Your task to perform on an android device: Open calendar and show me the fourth week of next month Image 0: 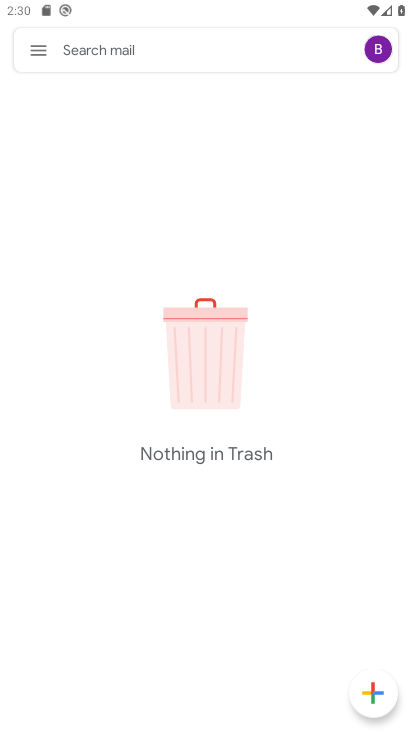
Step 0: press back button
Your task to perform on an android device: Open calendar and show me the fourth week of next month Image 1: 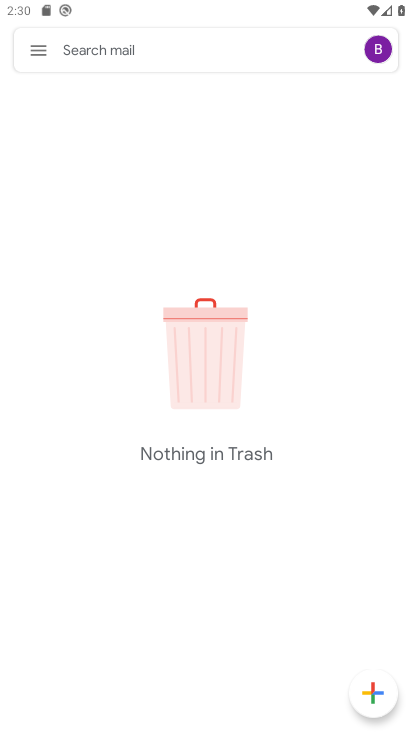
Step 1: press back button
Your task to perform on an android device: Open calendar and show me the fourth week of next month Image 2: 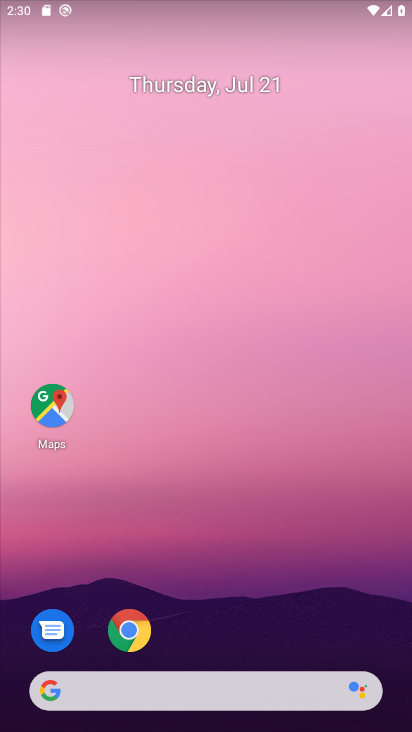
Step 2: drag from (236, 520) to (170, 143)
Your task to perform on an android device: Open calendar and show me the fourth week of next month Image 3: 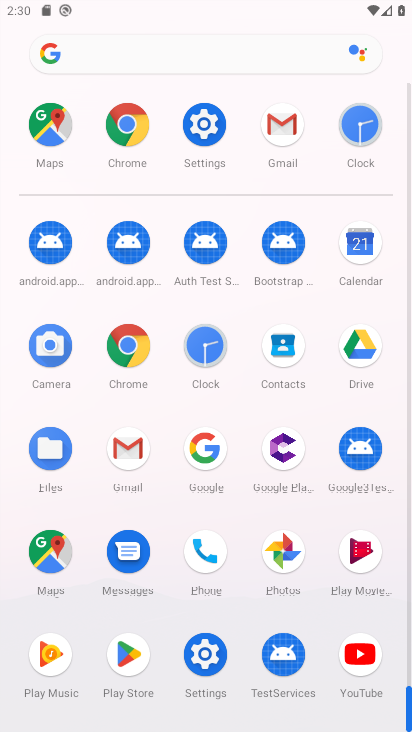
Step 3: click (349, 246)
Your task to perform on an android device: Open calendar and show me the fourth week of next month Image 4: 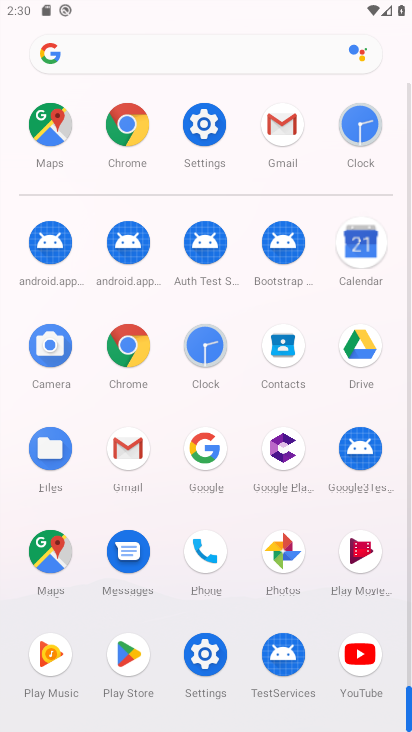
Step 4: click (353, 240)
Your task to perform on an android device: Open calendar and show me the fourth week of next month Image 5: 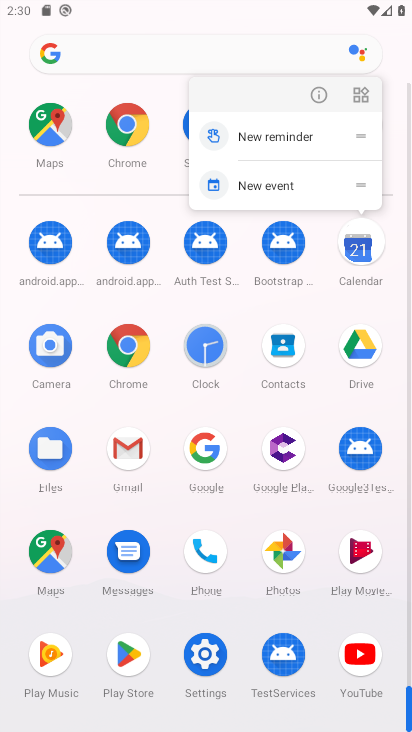
Step 5: click (354, 238)
Your task to perform on an android device: Open calendar and show me the fourth week of next month Image 6: 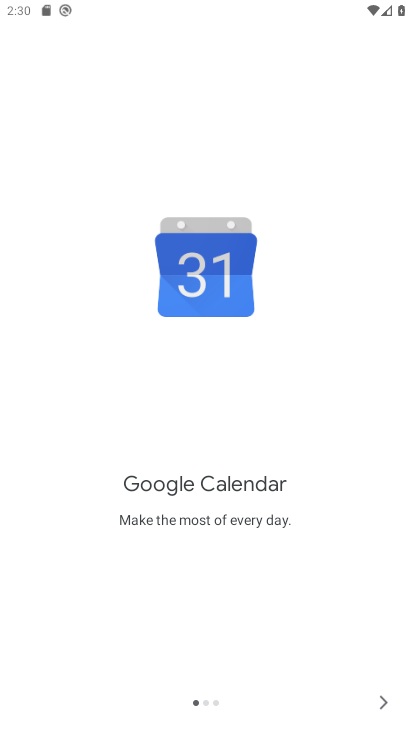
Step 6: click (384, 702)
Your task to perform on an android device: Open calendar and show me the fourth week of next month Image 7: 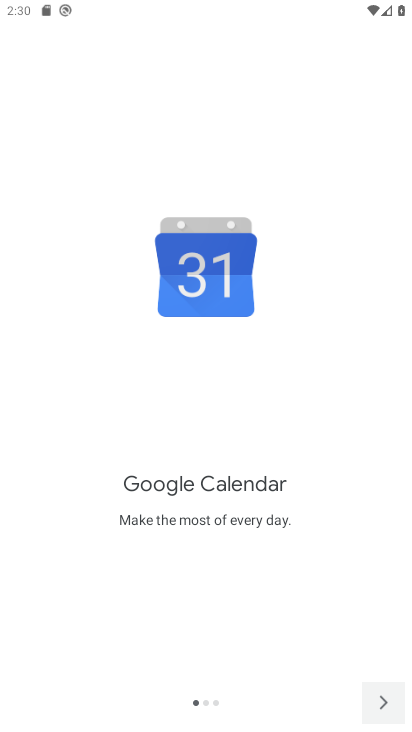
Step 7: click (385, 702)
Your task to perform on an android device: Open calendar and show me the fourth week of next month Image 8: 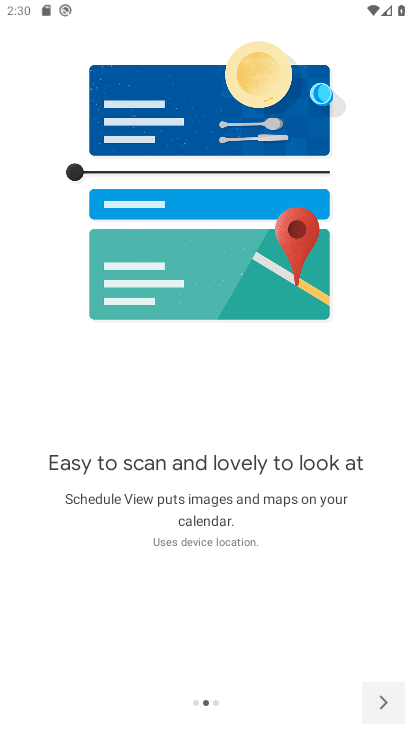
Step 8: click (383, 702)
Your task to perform on an android device: Open calendar and show me the fourth week of next month Image 9: 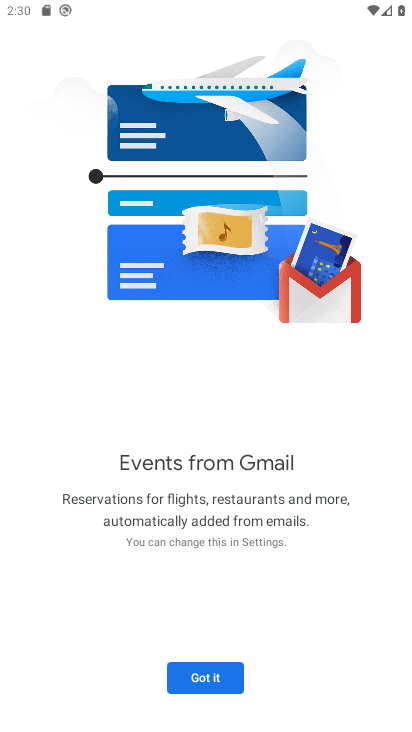
Step 9: click (383, 702)
Your task to perform on an android device: Open calendar and show me the fourth week of next month Image 10: 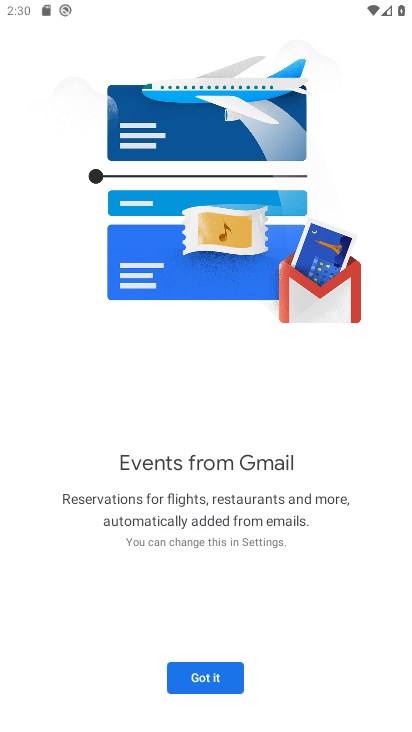
Step 10: click (383, 702)
Your task to perform on an android device: Open calendar and show me the fourth week of next month Image 11: 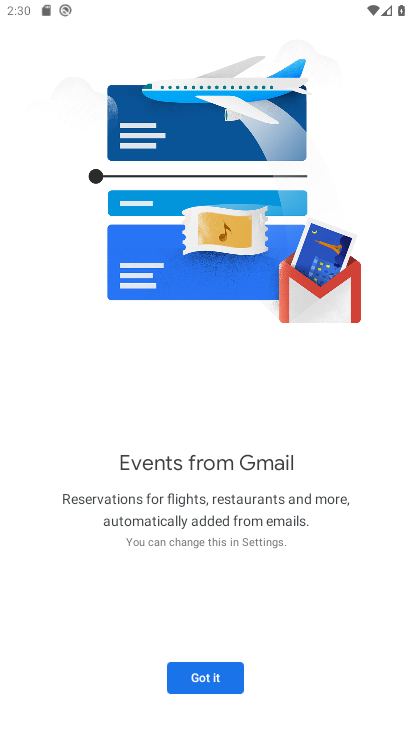
Step 11: click (184, 650)
Your task to perform on an android device: Open calendar and show me the fourth week of next month Image 12: 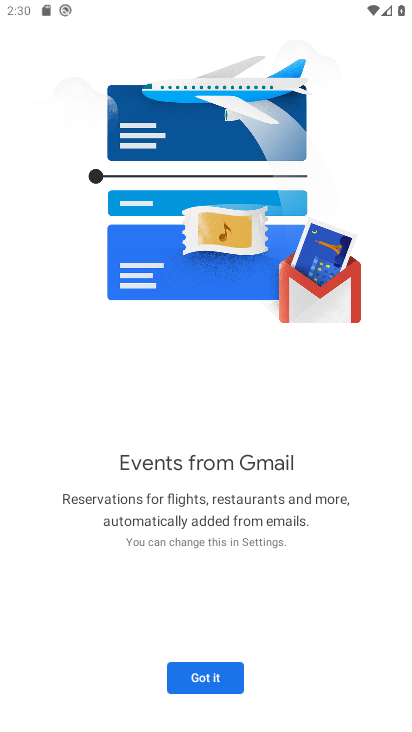
Step 12: click (200, 669)
Your task to perform on an android device: Open calendar and show me the fourth week of next month Image 13: 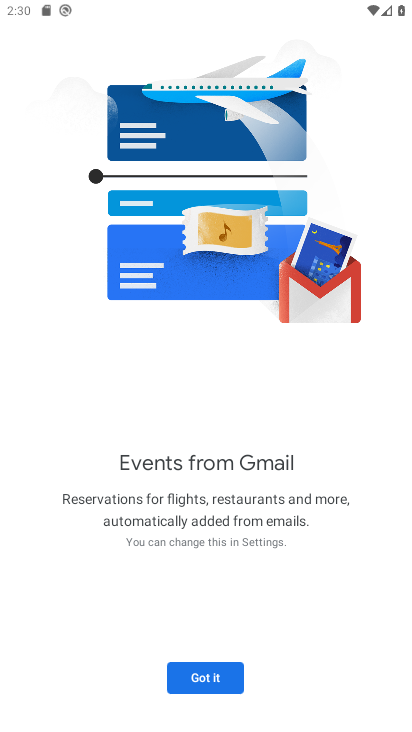
Step 13: click (204, 672)
Your task to perform on an android device: Open calendar and show me the fourth week of next month Image 14: 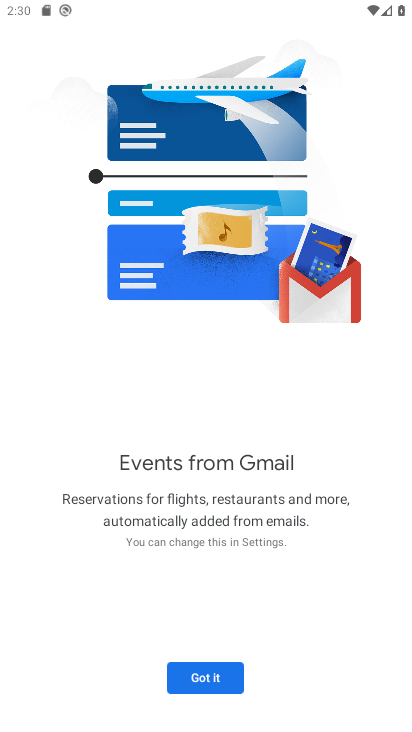
Step 14: click (205, 673)
Your task to perform on an android device: Open calendar and show me the fourth week of next month Image 15: 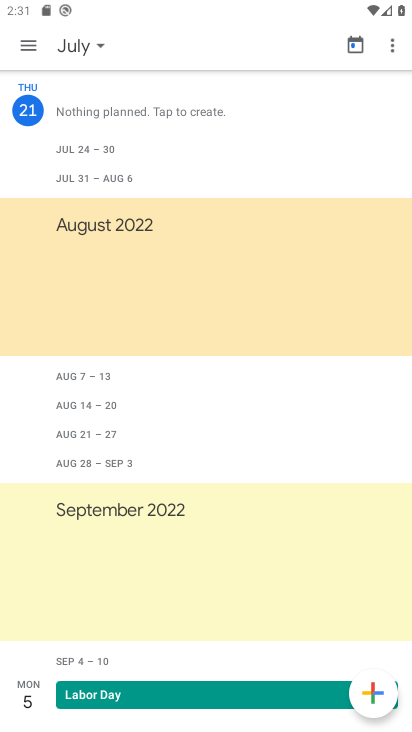
Step 15: drag from (115, 204) to (148, 506)
Your task to perform on an android device: Open calendar and show me the fourth week of next month Image 16: 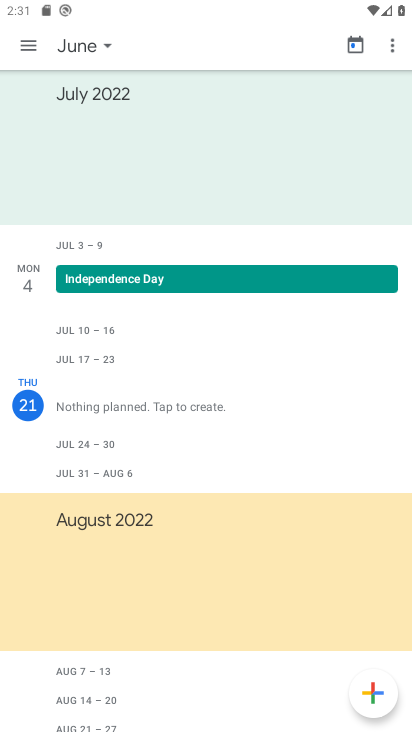
Step 16: click (126, 496)
Your task to perform on an android device: Open calendar and show me the fourth week of next month Image 17: 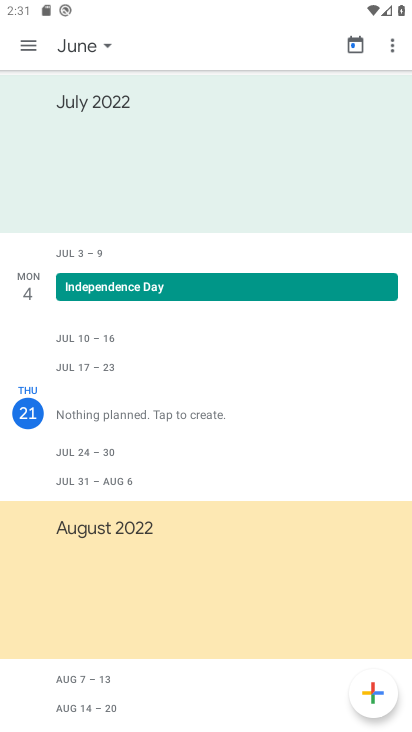
Step 17: click (102, 38)
Your task to perform on an android device: Open calendar and show me the fourth week of next month Image 18: 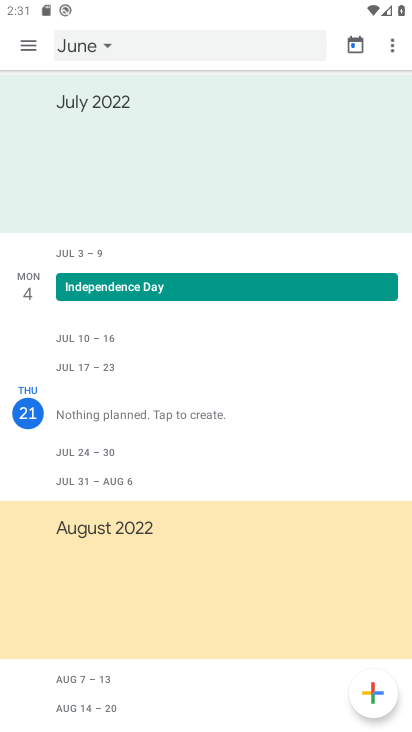
Step 18: click (103, 37)
Your task to perform on an android device: Open calendar and show me the fourth week of next month Image 19: 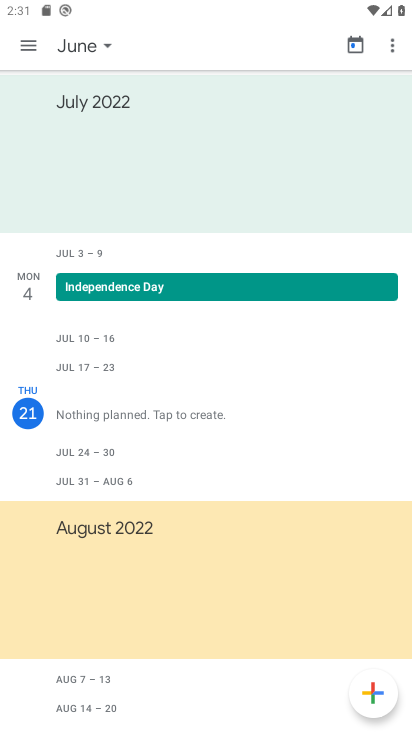
Step 19: click (109, 39)
Your task to perform on an android device: Open calendar and show me the fourth week of next month Image 20: 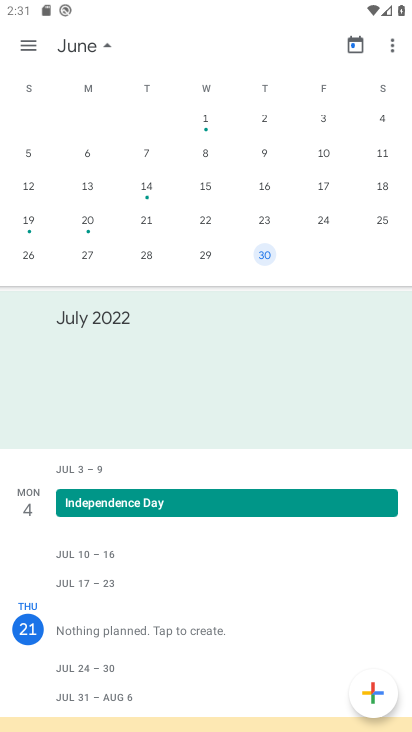
Step 20: drag from (316, 159) to (10, 221)
Your task to perform on an android device: Open calendar and show me the fourth week of next month Image 21: 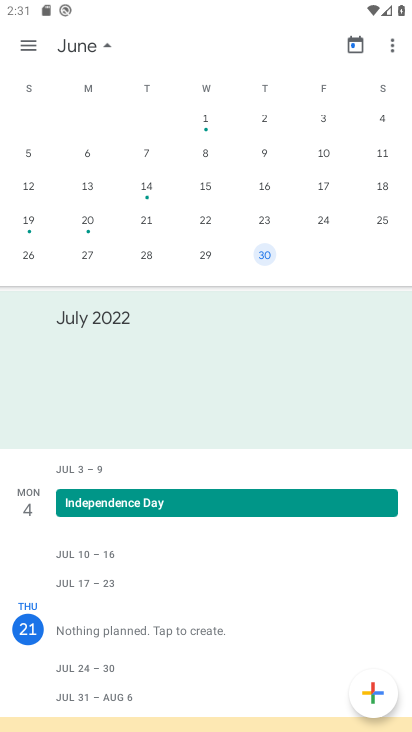
Step 21: drag from (243, 184) to (70, 234)
Your task to perform on an android device: Open calendar and show me the fourth week of next month Image 22: 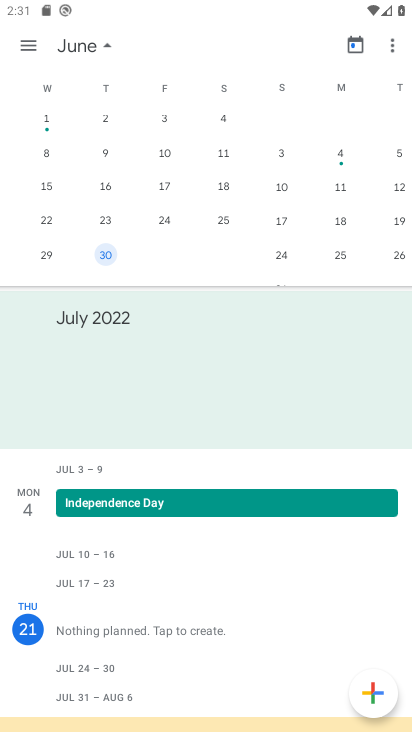
Step 22: drag from (201, 153) to (13, 218)
Your task to perform on an android device: Open calendar and show me the fourth week of next month Image 23: 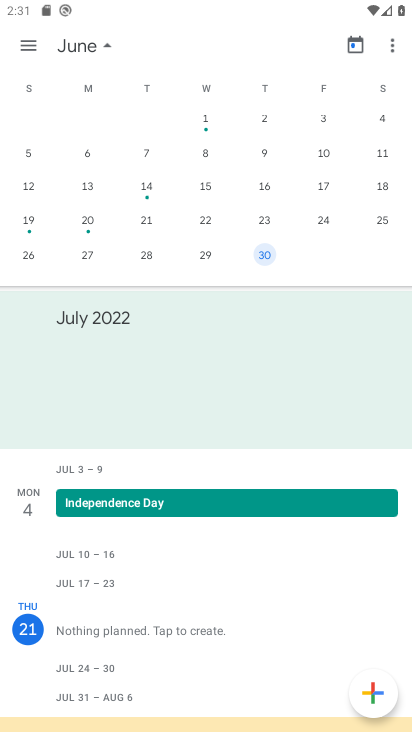
Step 23: drag from (180, 161) to (5, 169)
Your task to perform on an android device: Open calendar and show me the fourth week of next month Image 24: 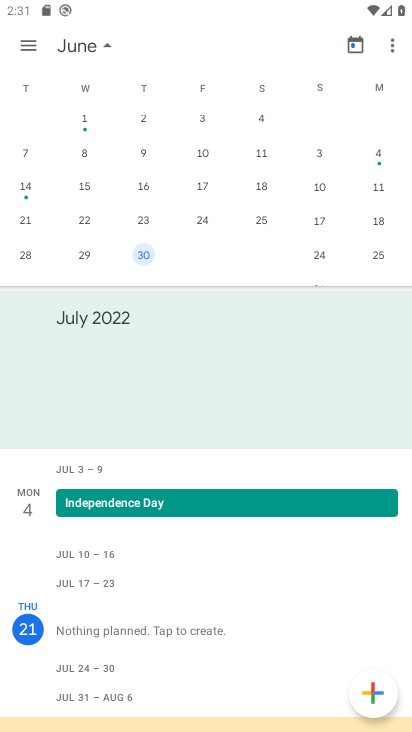
Step 24: drag from (200, 128) to (4, 161)
Your task to perform on an android device: Open calendar and show me the fourth week of next month Image 25: 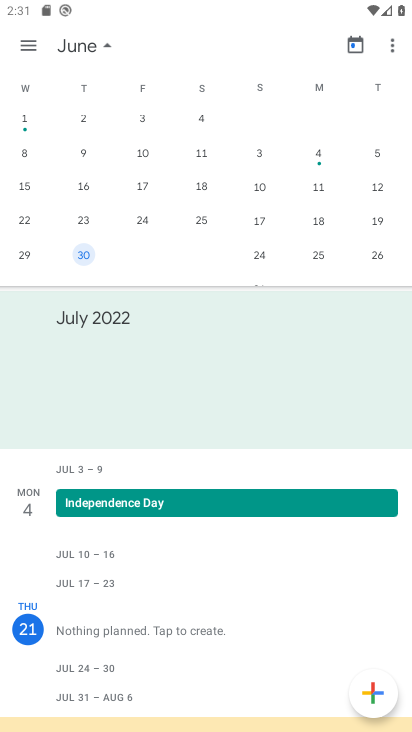
Step 25: drag from (199, 132) to (4, 167)
Your task to perform on an android device: Open calendar and show me the fourth week of next month Image 26: 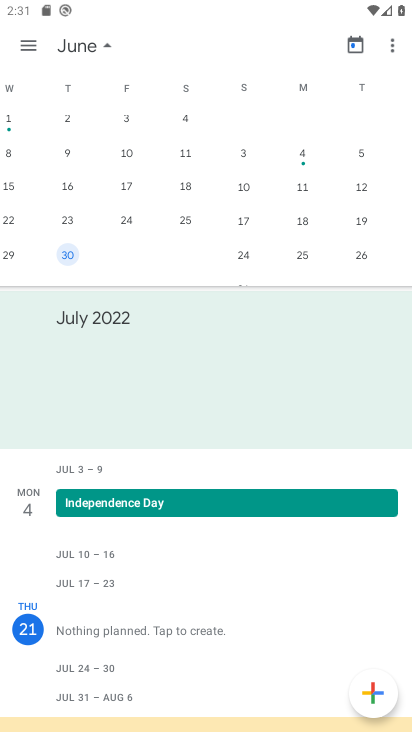
Step 26: drag from (237, 134) to (19, 151)
Your task to perform on an android device: Open calendar and show me the fourth week of next month Image 27: 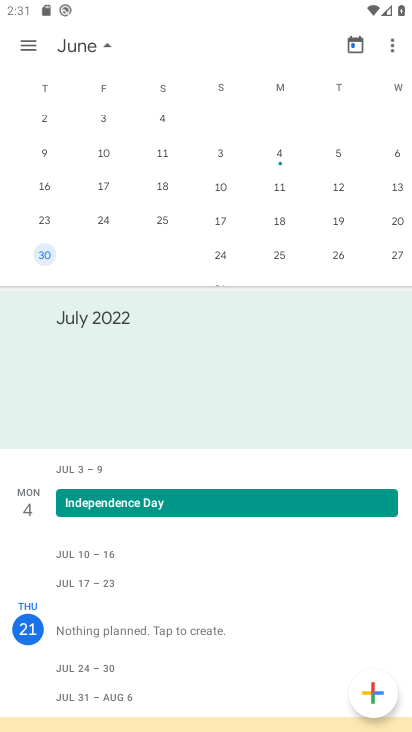
Step 27: drag from (240, 129) to (9, 182)
Your task to perform on an android device: Open calendar and show me the fourth week of next month Image 28: 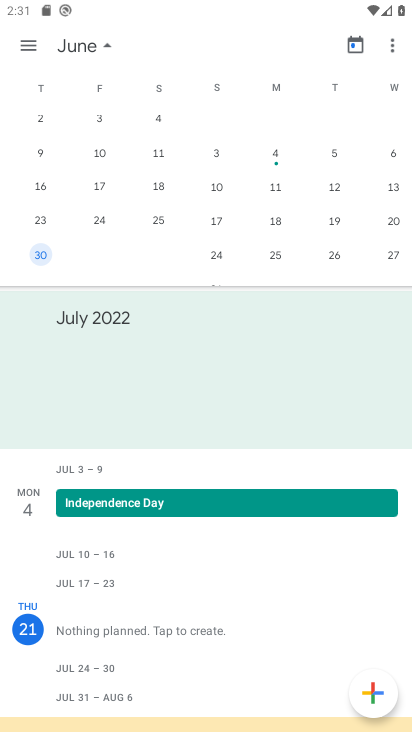
Step 28: drag from (289, 129) to (25, 168)
Your task to perform on an android device: Open calendar and show me the fourth week of next month Image 29: 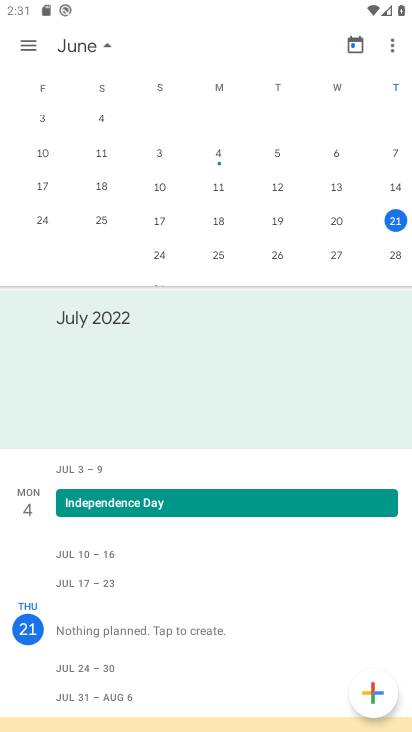
Step 29: drag from (232, 136) to (6, 217)
Your task to perform on an android device: Open calendar and show me the fourth week of next month Image 30: 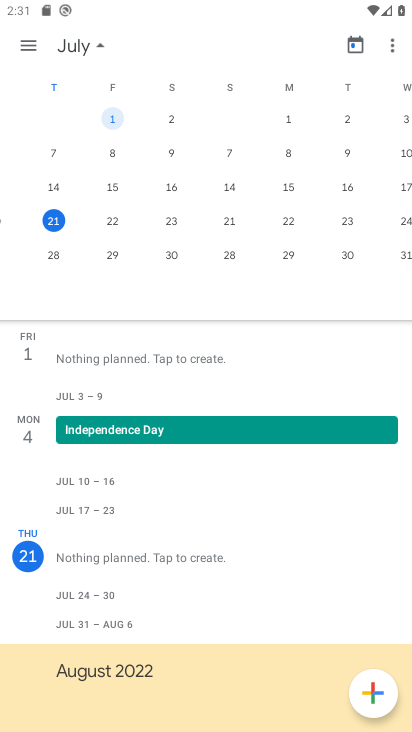
Step 30: drag from (300, 161) to (3, 165)
Your task to perform on an android device: Open calendar and show me the fourth week of next month Image 31: 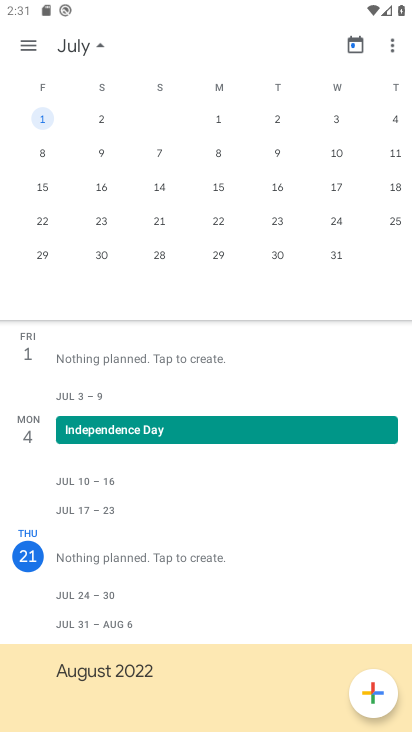
Step 31: drag from (276, 100) to (30, 169)
Your task to perform on an android device: Open calendar and show me the fourth week of next month Image 32: 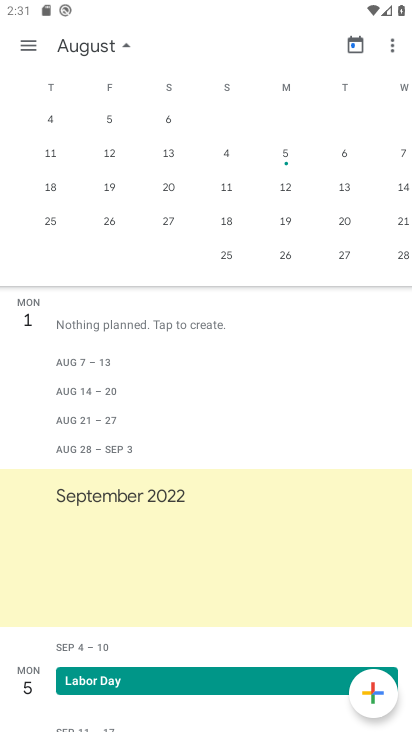
Step 32: drag from (175, 148) to (312, 237)
Your task to perform on an android device: Open calendar and show me the fourth week of next month Image 33: 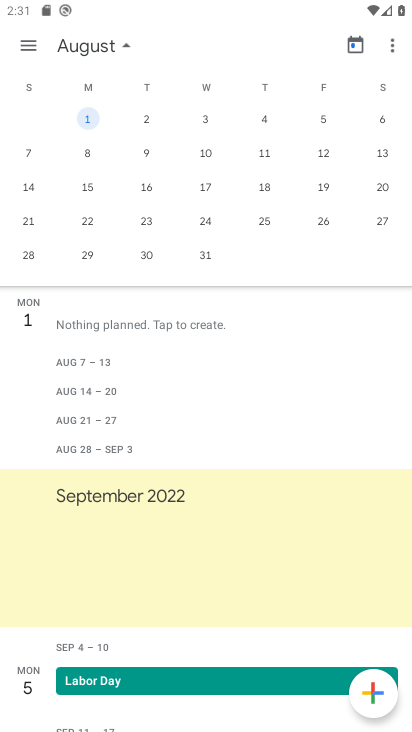
Step 33: click (145, 212)
Your task to perform on an android device: Open calendar and show me the fourth week of next month Image 34: 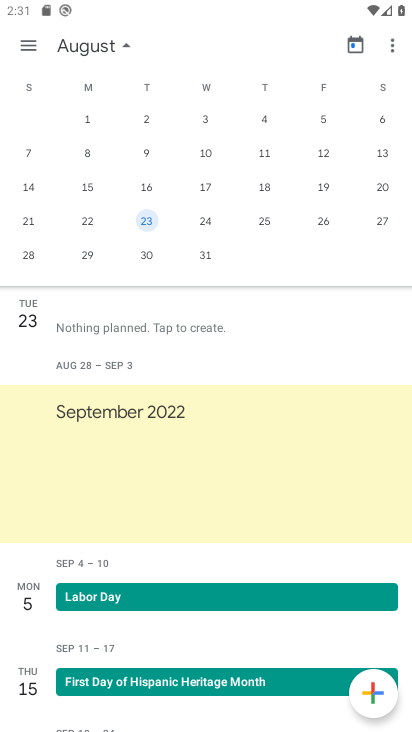
Step 34: click (145, 212)
Your task to perform on an android device: Open calendar and show me the fourth week of next month Image 35: 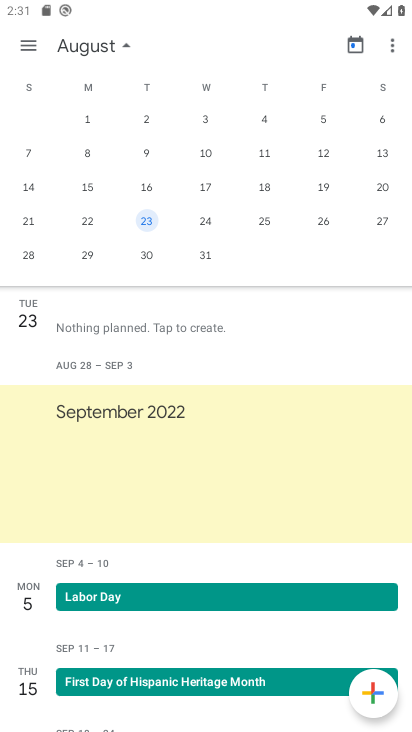
Step 35: task complete